Your task to perform on an android device: Go to Yahoo.com Image 0: 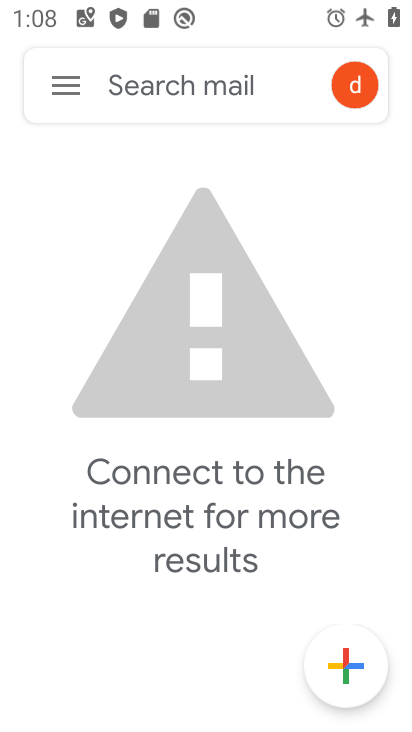
Step 0: press home button
Your task to perform on an android device: Go to Yahoo.com Image 1: 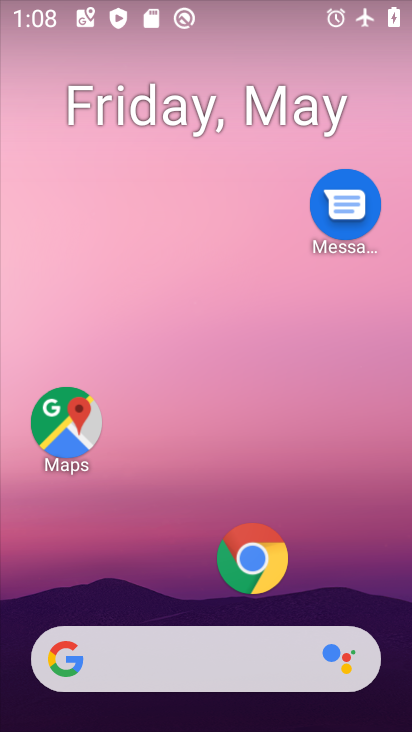
Step 1: drag from (208, 631) to (255, 210)
Your task to perform on an android device: Go to Yahoo.com Image 2: 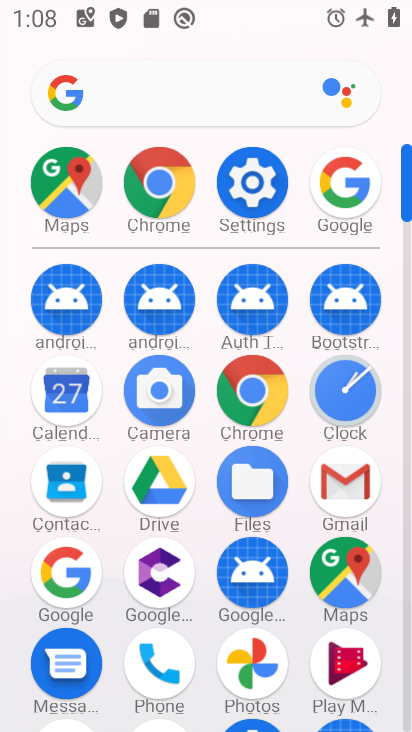
Step 2: click (153, 200)
Your task to perform on an android device: Go to Yahoo.com Image 3: 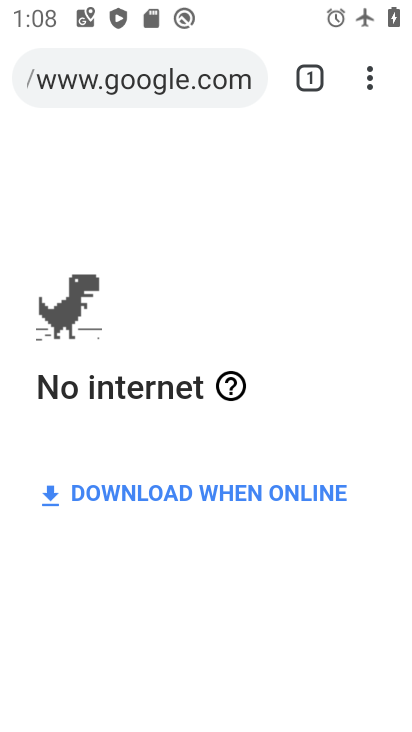
Step 3: click (167, 92)
Your task to perform on an android device: Go to Yahoo.com Image 4: 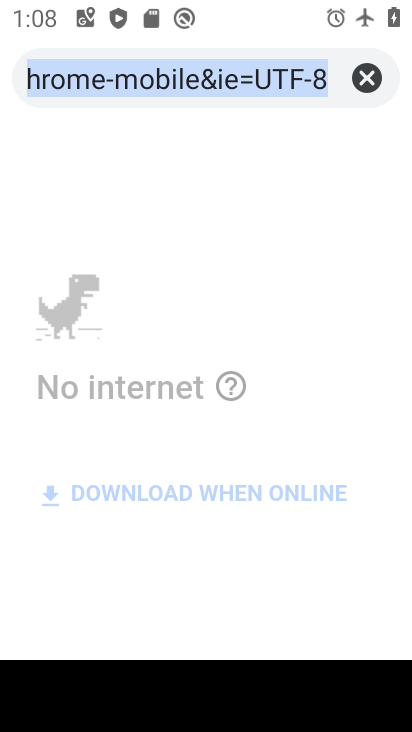
Step 4: type "yahoo"
Your task to perform on an android device: Go to Yahoo.com Image 5: 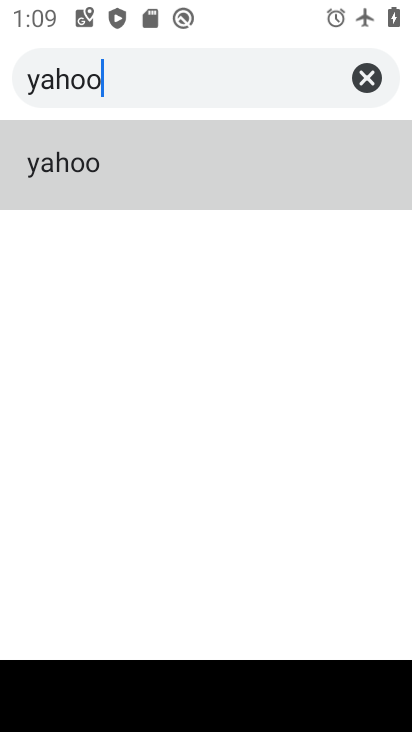
Step 5: task complete